Your task to perform on an android device: turn notification dots on Image 0: 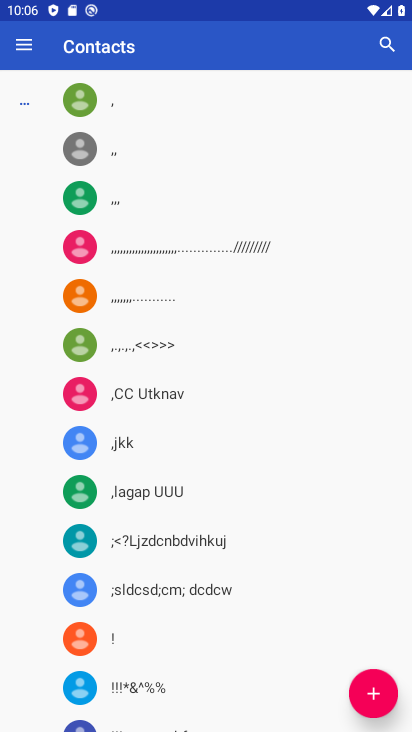
Step 0: press home button
Your task to perform on an android device: turn notification dots on Image 1: 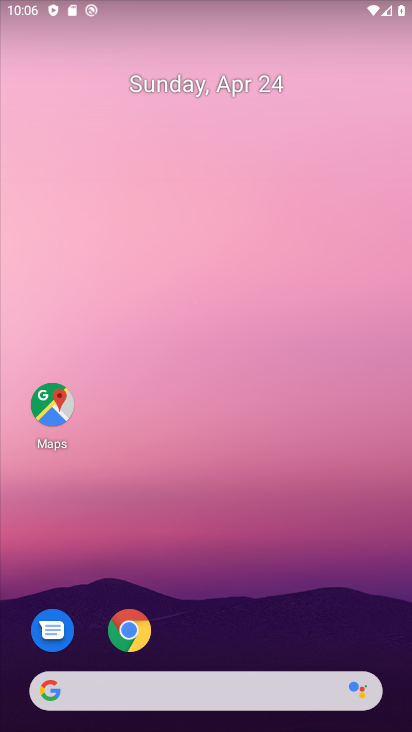
Step 1: drag from (200, 637) to (198, 231)
Your task to perform on an android device: turn notification dots on Image 2: 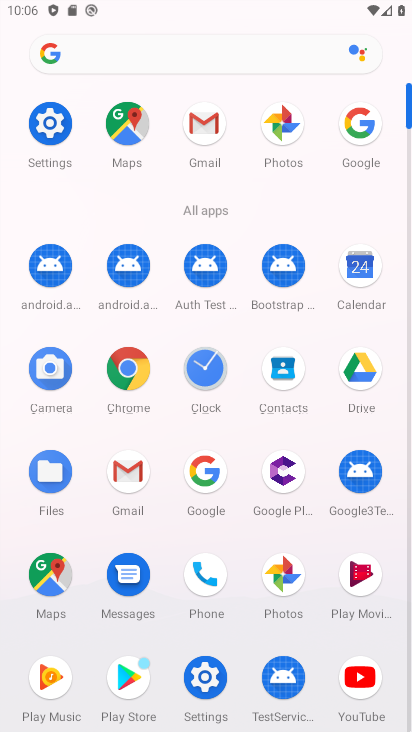
Step 2: click (44, 142)
Your task to perform on an android device: turn notification dots on Image 3: 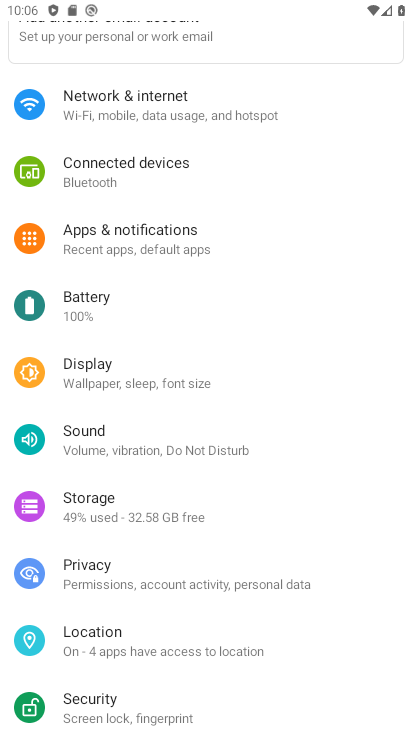
Step 3: click (135, 247)
Your task to perform on an android device: turn notification dots on Image 4: 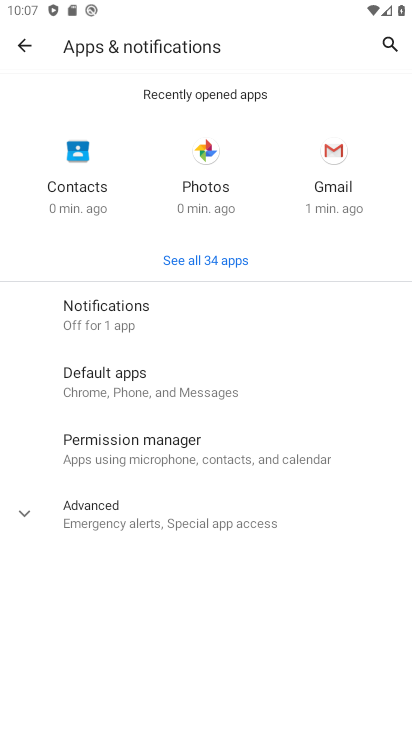
Step 4: click (181, 506)
Your task to perform on an android device: turn notification dots on Image 5: 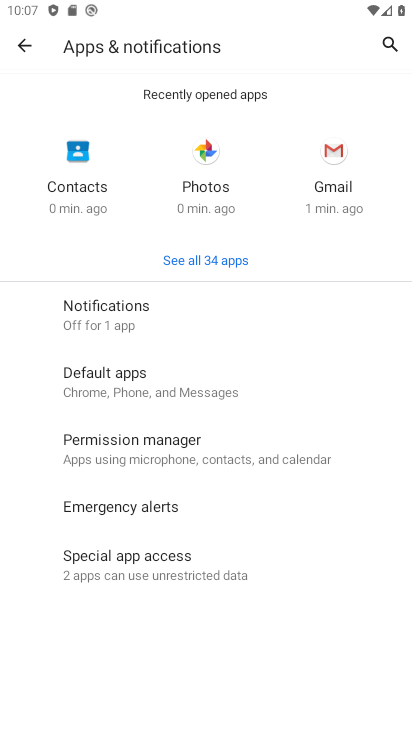
Step 5: click (170, 333)
Your task to perform on an android device: turn notification dots on Image 6: 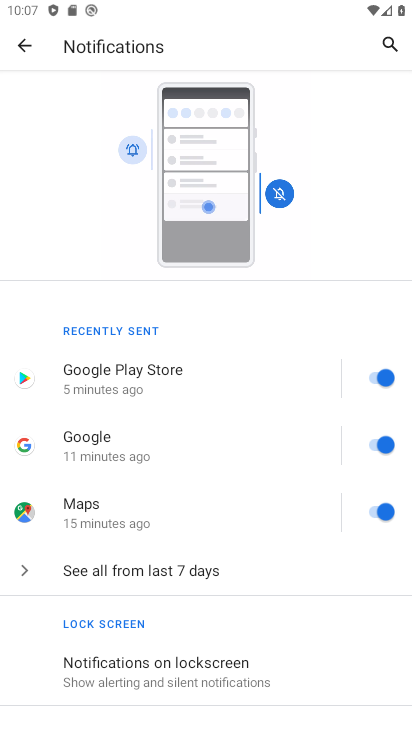
Step 6: drag from (265, 634) to (286, 353)
Your task to perform on an android device: turn notification dots on Image 7: 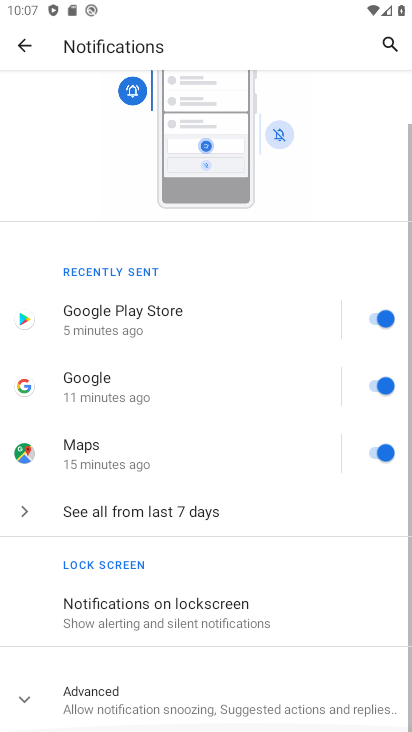
Step 7: click (283, 698)
Your task to perform on an android device: turn notification dots on Image 8: 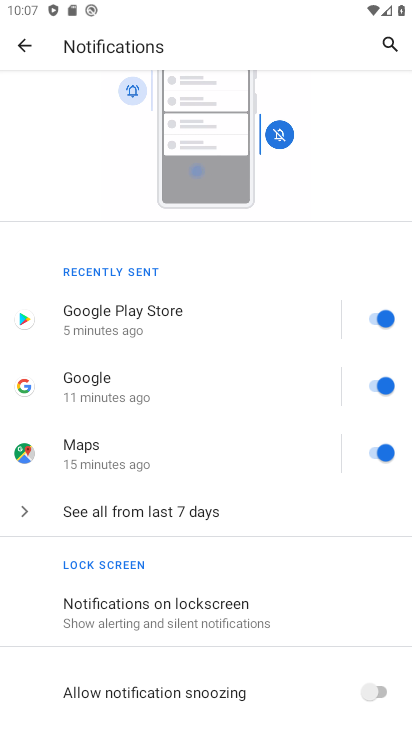
Step 8: task complete